Your task to perform on an android device: turn off translation in the chrome app Image 0: 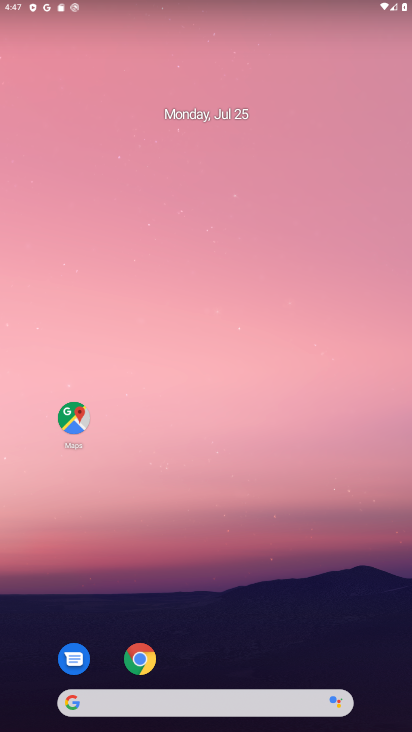
Step 0: drag from (230, 412) to (201, 23)
Your task to perform on an android device: turn off translation in the chrome app Image 1: 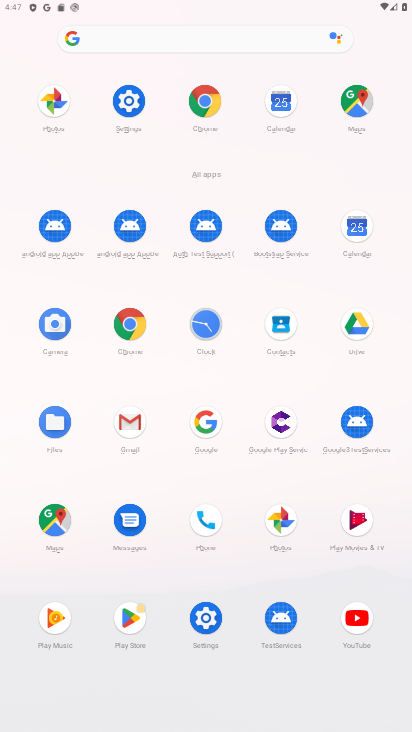
Step 1: click (201, 116)
Your task to perform on an android device: turn off translation in the chrome app Image 2: 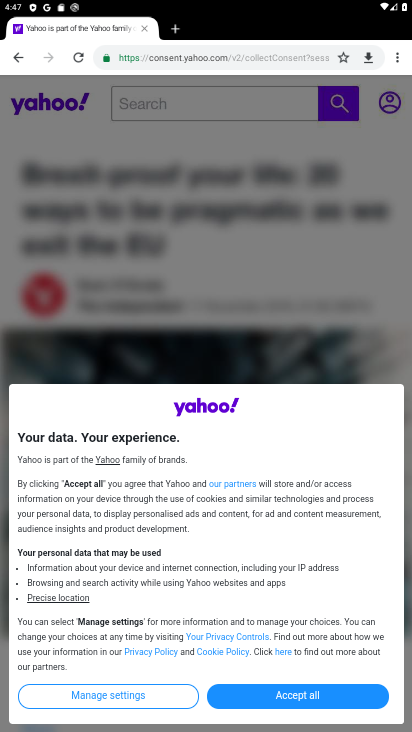
Step 2: click (395, 55)
Your task to perform on an android device: turn off translation in the chrome app Image 3: 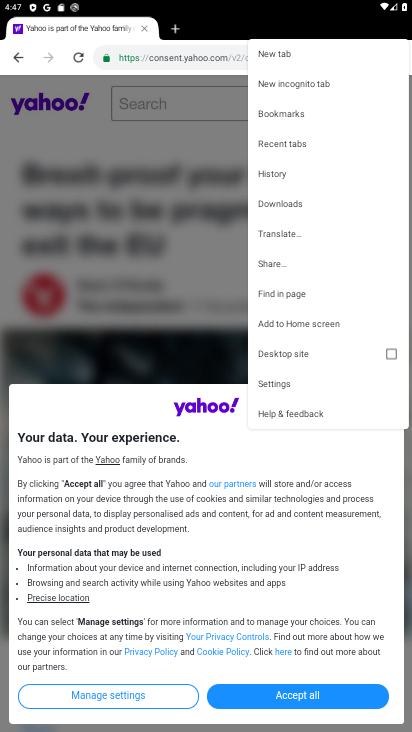
Step 3: click (290, 380)
Your task to perform on an android device: turn off translation in the chrome app Image 4: 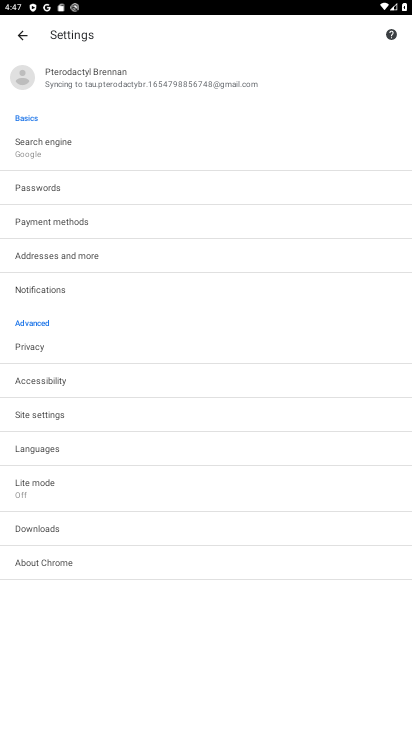
Step 4: click (27, 456)
Your task to perform on an android device: turn off translation in the chrome app Image 5: 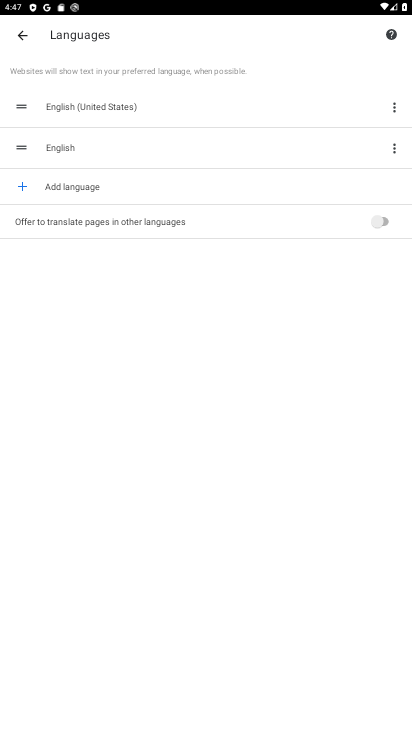
Step 5: task complete